Your task to perform on an android device: Go to calendar. Show me events next week Image 0: 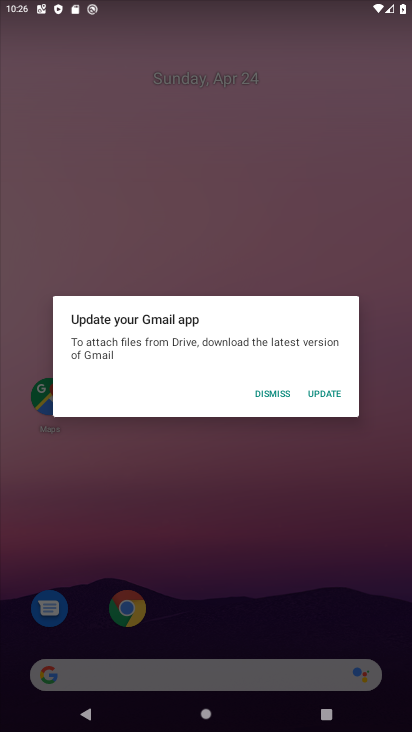
Step 0: press home button
Your task to perform on an android device: Go to calendar. Show me events next week Image 1: 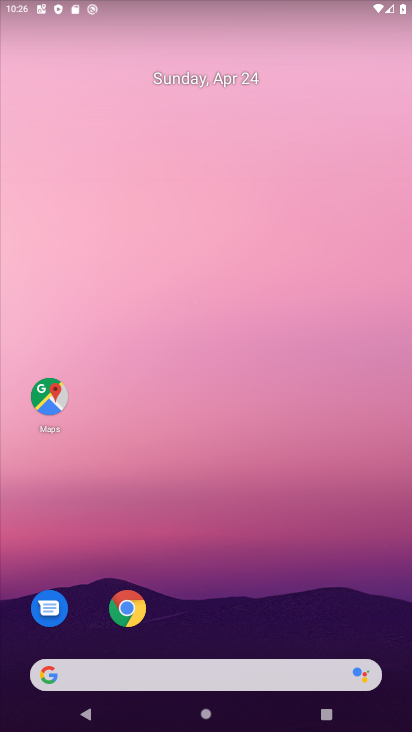
Step 1: drag from (283, 696) to (264, 235)
Your task to perform on an android device: Go to calendar. Show me events next week Image 2: 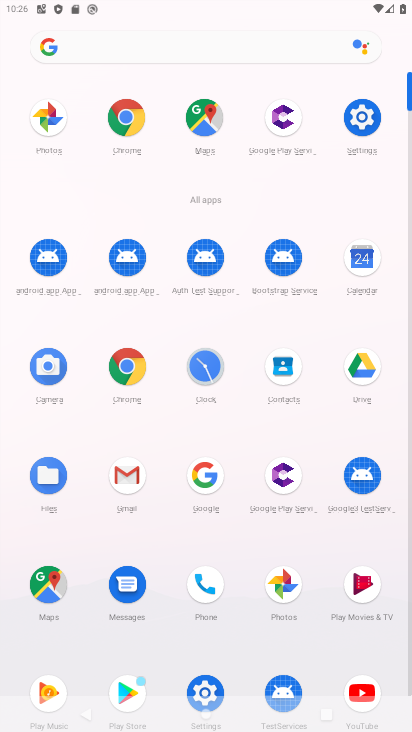
Step 2: click (355, 269)
Your task to perform on an android device: Go to calendar. Show me events next week Image 3: 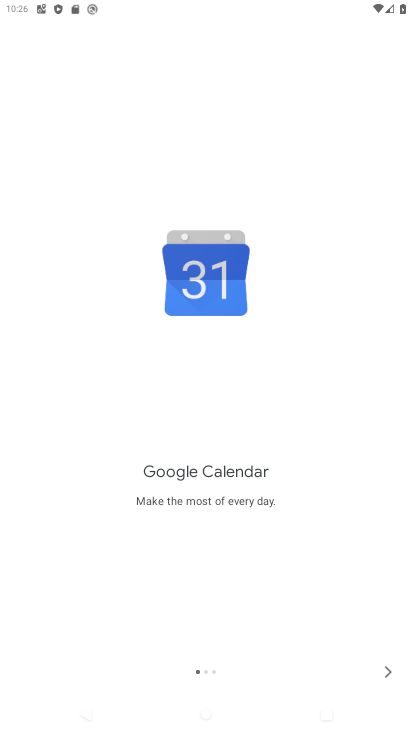
Step 3: click (383, 673)
Your task to perform on an android device: Go to calendar. Show me events next week Image 4: 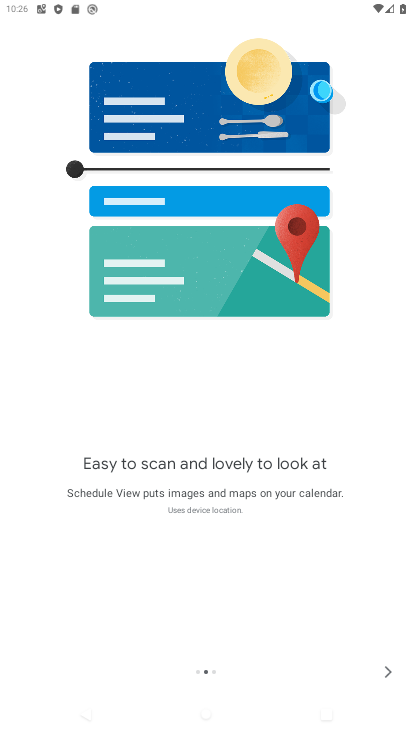
Step 4: click (383, 673)
Your task to perform on an android device: Go to calendar. Show me events next week Image 5: 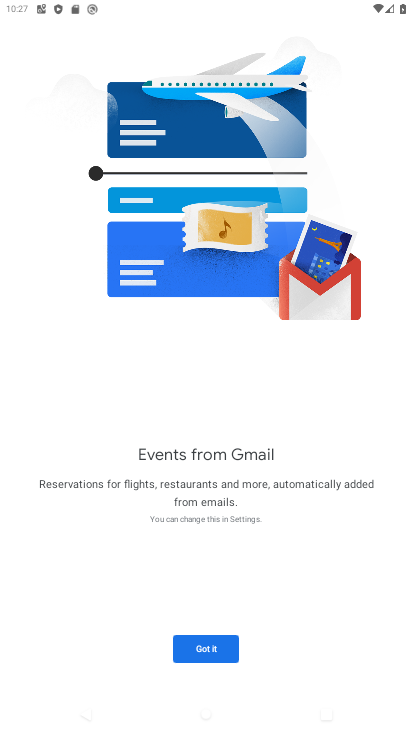
Step 5: click (216, 644)
Your task to perform on an android device: Go to calendar. Show me events next week Image 6: 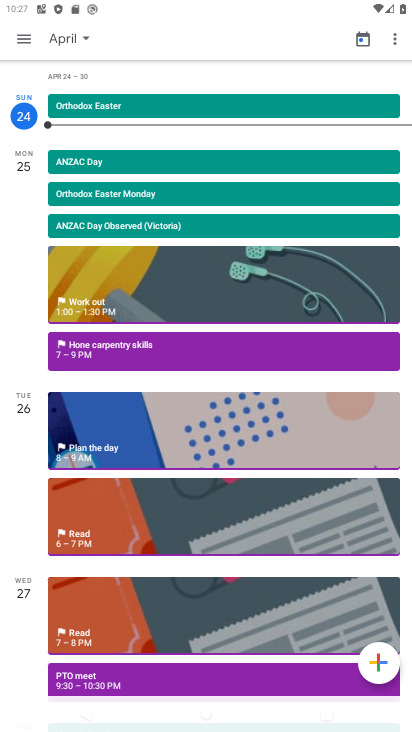
Step 6: click (30, 45)
Your task to perform on an android device: Go to calendar. Show me events next week Image 7: 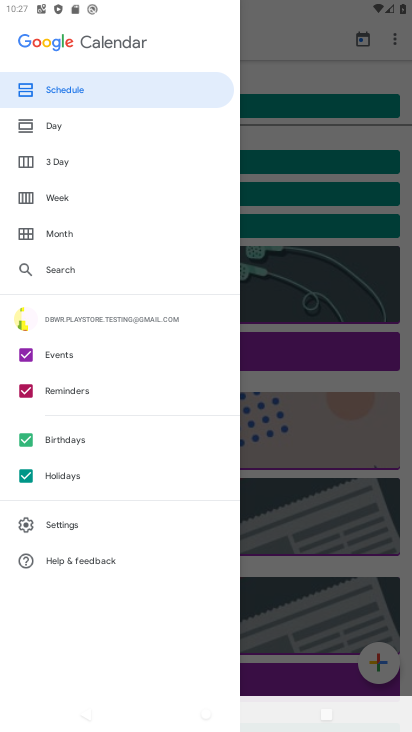
Step 7: click (62, 204)
Your task to perform on an android device: Go to calendar. Show me events next week Image 8: 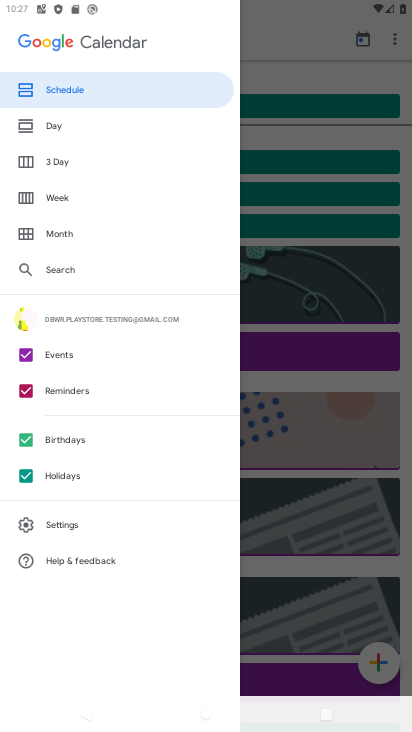
Step 8: click (61, 203)
Your task to perform on an android device: Go to calendar. Show me events next week Image 9: 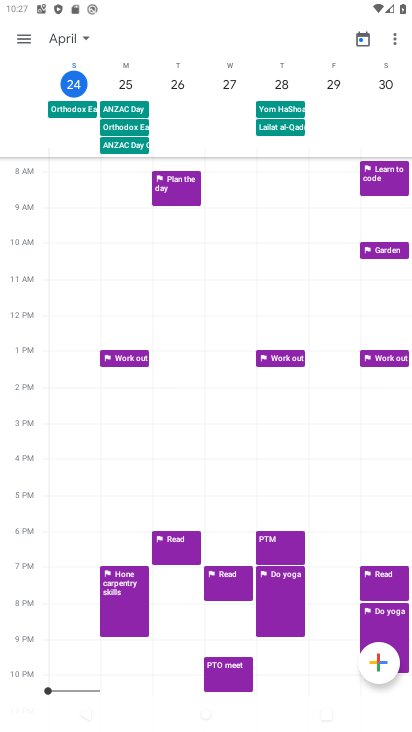
Step 9: task complete